Your task to perform on an android device: Open eBay Image 0: 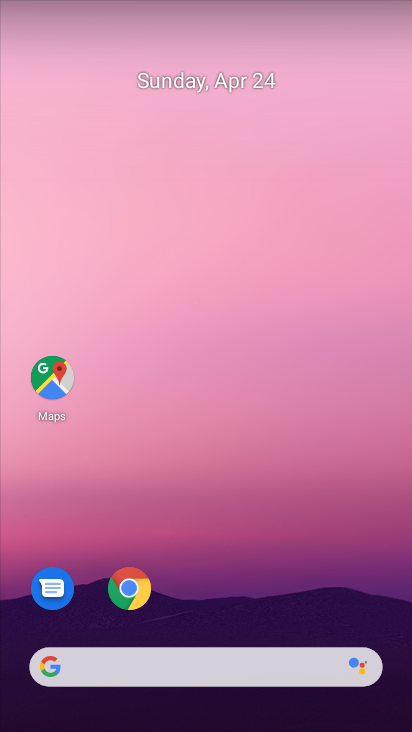
Step 0: click (129, 590)
Your task to perform on an android device: Open eBay Image 1: 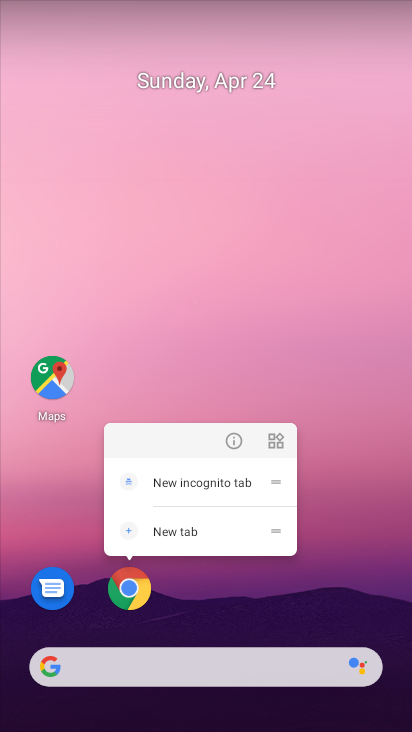
Step 1: click (129, 590)
Your task to perform on an android device: Open eBay Image 2: 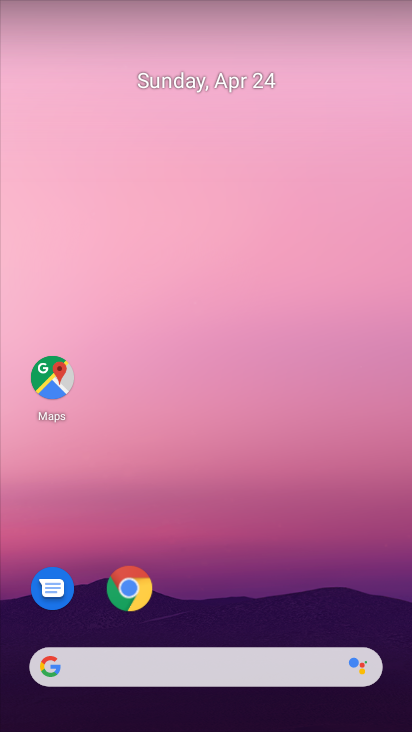
Step 2: click (129, 590)
Your task to perform on an android device: Open eBay Image 3: 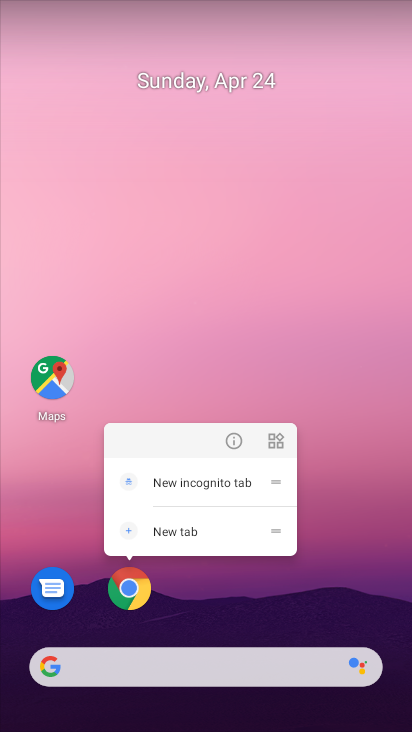
Step 3: click (129, 590)
Your task to perform on an android device: Open eBay Image 4: 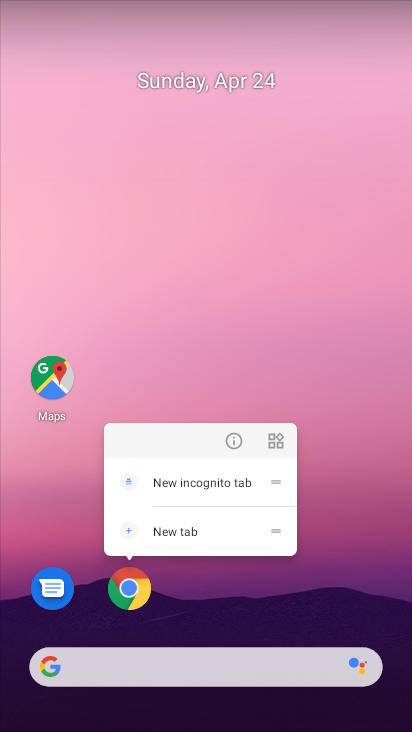
Step 4: click (134, 597)
Your task to perform on an android device: Open eBay Image 5: 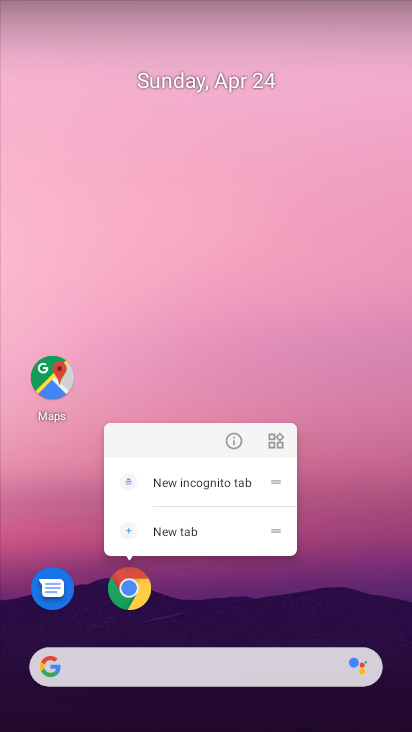
Step 5: click (134, 597)
Your task to perform on an android device: Open eBay Image 6: 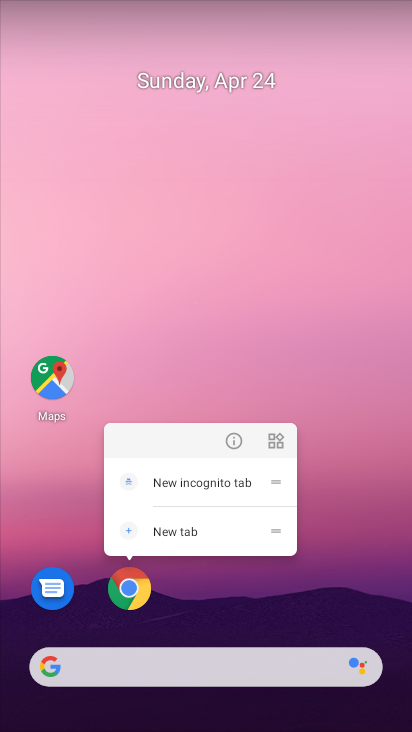
Step 6: click (134, 597)
Your task to perform on an android device: Open eBay Image 7: 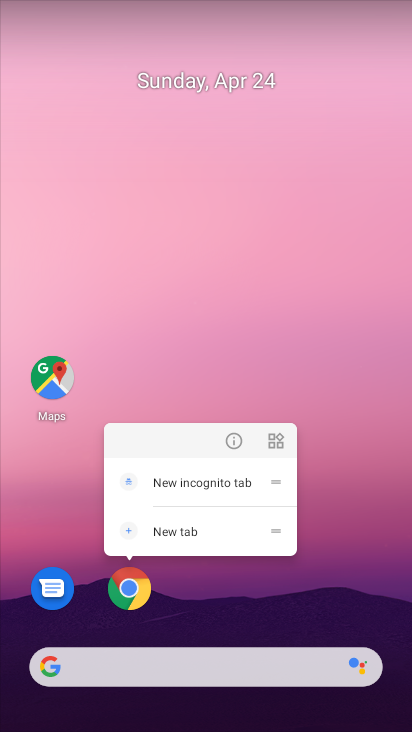
Step 7: click (121, 595)
Your task to perform on an android device: Open eBay Image 8: 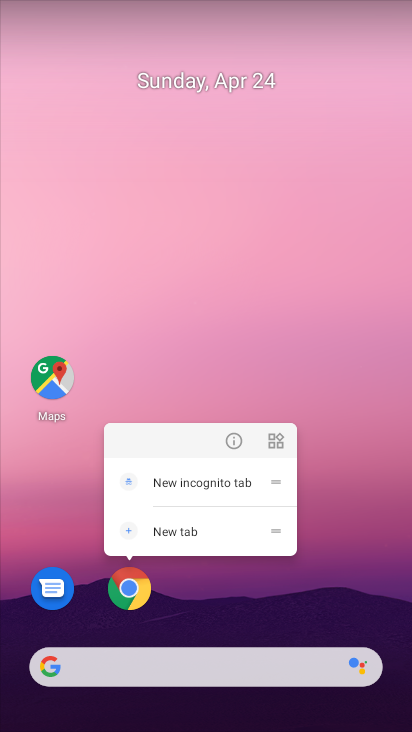
Step 8: click (121, 595)
Your task to perform on an android device: Open eBay Image 9: 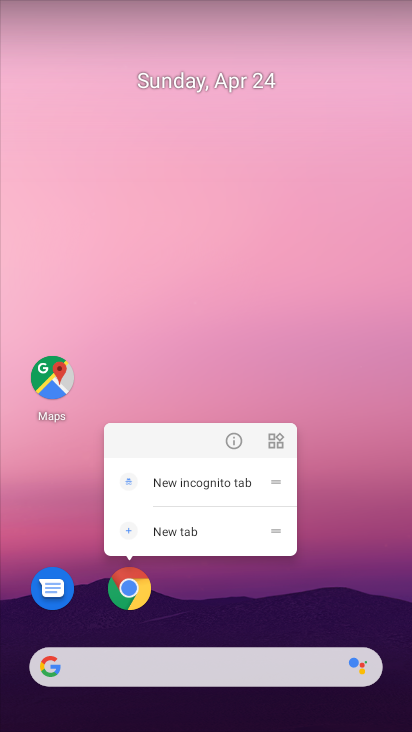
Step 9: click (131, 589)
Your task to perform on an android device: Open eBay Image 10: 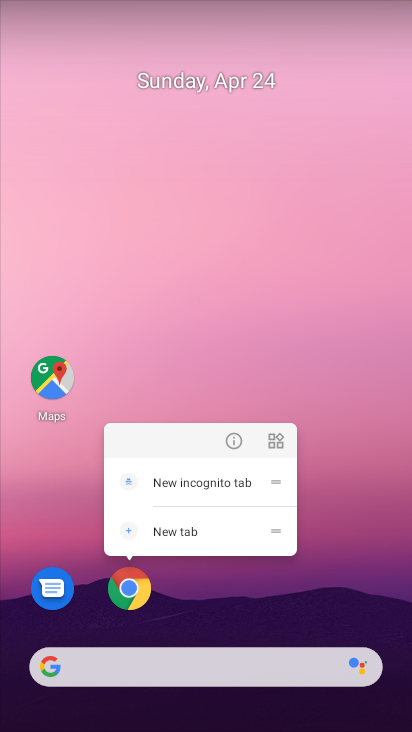
Step 10: click (135, 583)
Your task to perform on an android device: Open eBay Image 11: 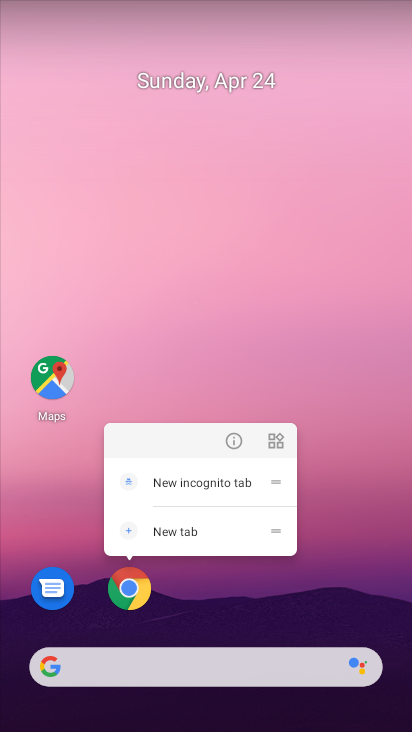
Step 11: click (135, 583)
Your task to perform on an android device: Open eBay Image 12: 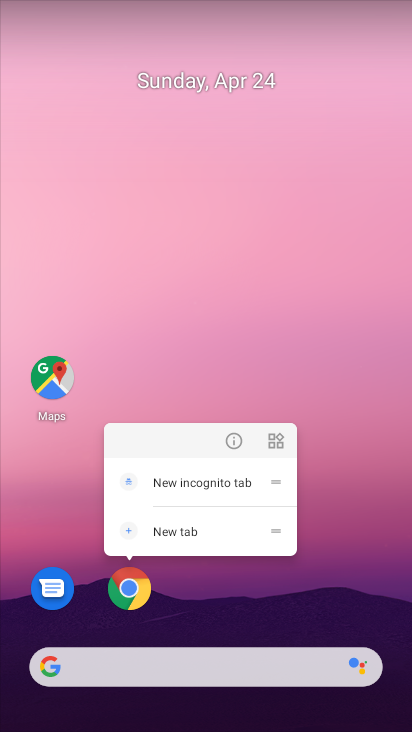
Step 12: click (298, 594)
Your task to perform on an android device: Open eBay Image 13: 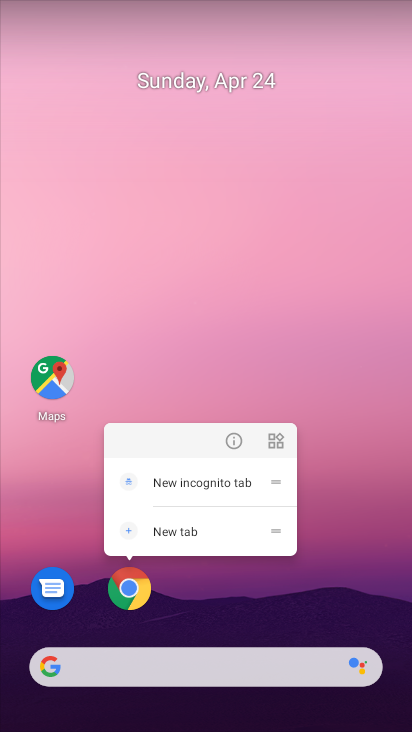
Step 13: click (135, 590)
Your task to perform on an android device: Open eBay Image 14: 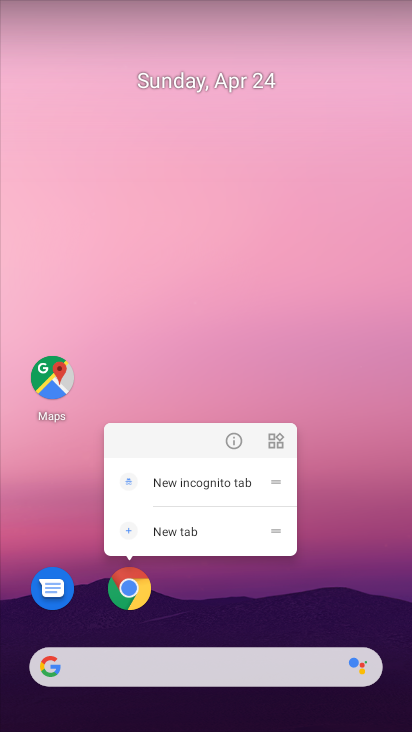
Step 14: click (136, 586)
Your task to perform on an android device: Open eBay Image 15: 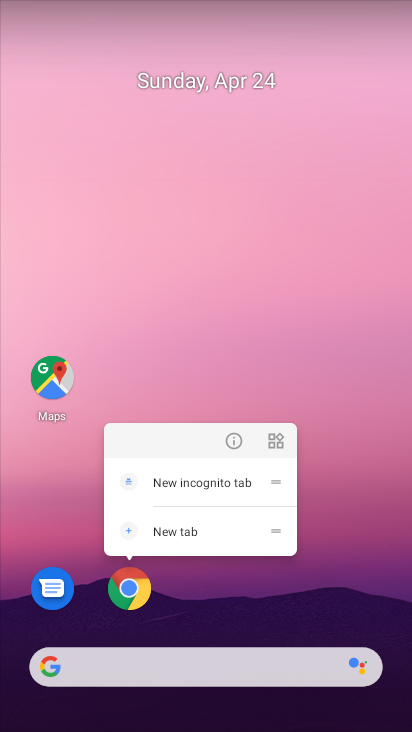
Step 15: click (136, 586)
Your task to perform on an android device: Open eBay Image 16: 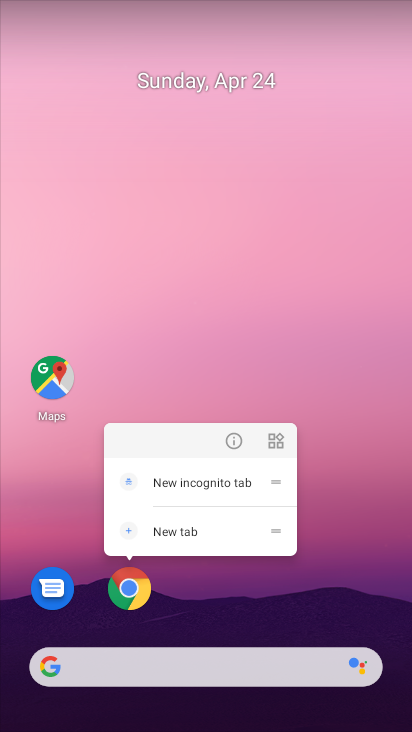
Step 16: click (136, 586)
Your task to perform on an android device: Open eBay Image 17: 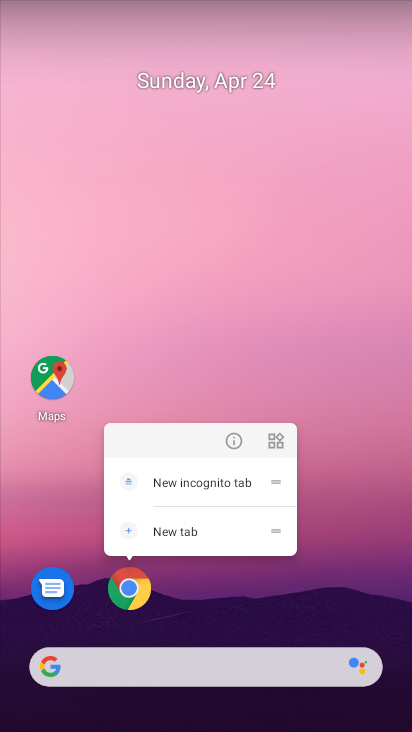
Step 17: click (136, 586)
Your task to perform on an android device: Open eBay Image 18: 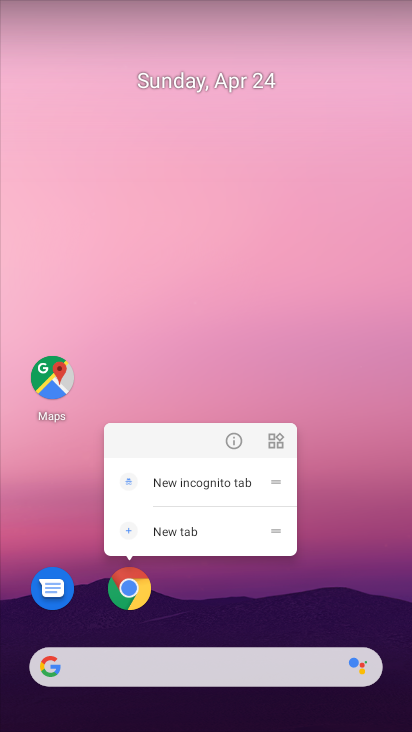
Step 18: click (131, 583)
Your task to perform on an android device: Open eBay Image 19: 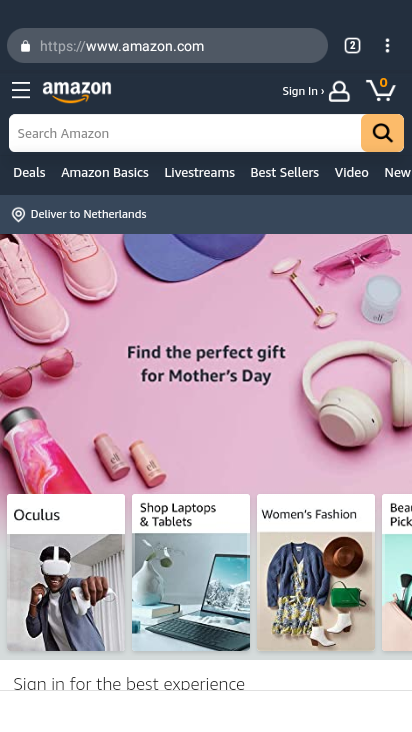
Step 19: click (349, 44)
Your task to perform on an android device: Open eBay Image 20: 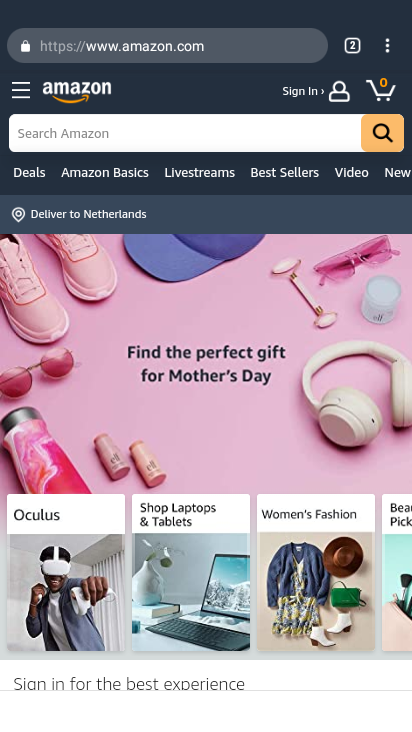
Step 20: click (349, 44)
Your task to perform on an android device: Open eBay Image 21: 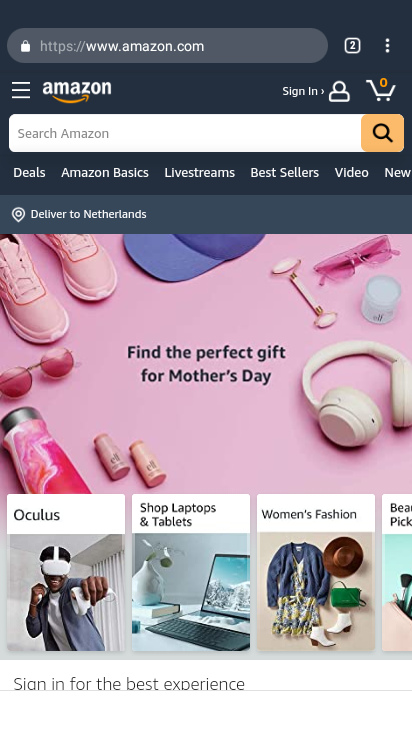
Step 21: click (358, 46)
Your task to perform on an android device: Open eBay Image 22: 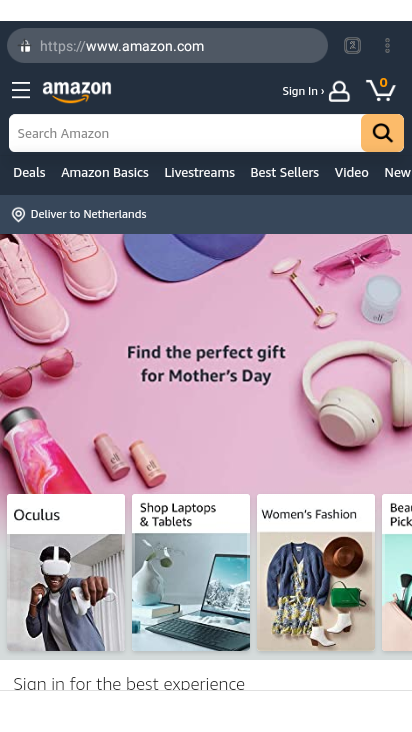
Step 22: click (358, 46)
Your task to perform on an android device: Open eBay Image 23: 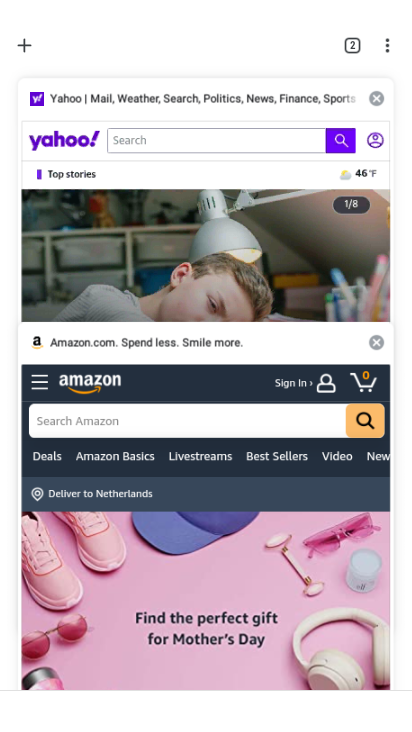
Step 23: click (23, 46)
Your task to perform on an android device: Open eBay Image 24: 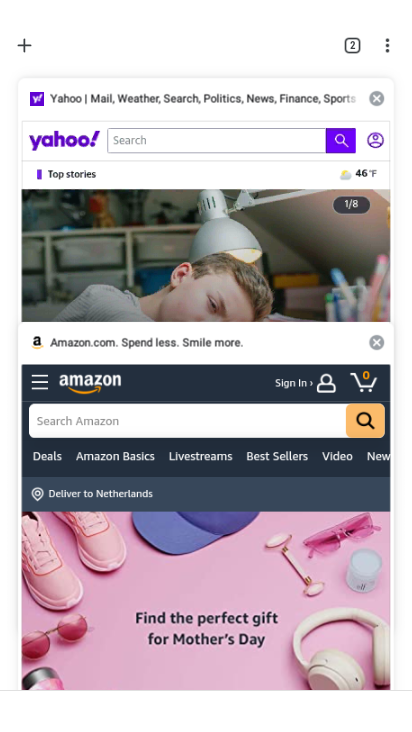
Step 24: click (23, 46)
Your task to perform on an android device: Open eBay Image 25: 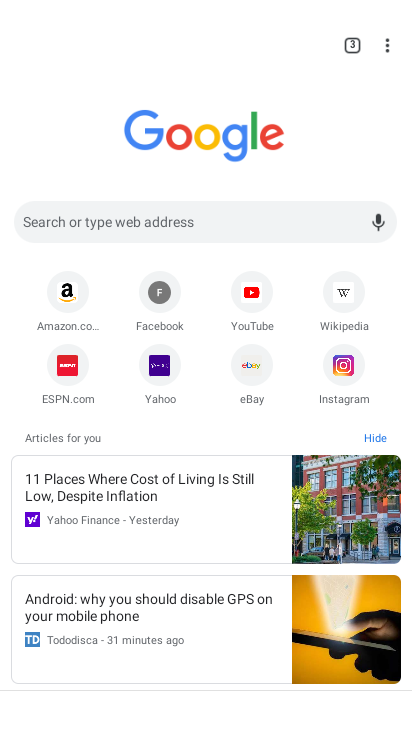
Step 25: click (256, 372)
Your task to perform on an android device: Open eBay Image 26: 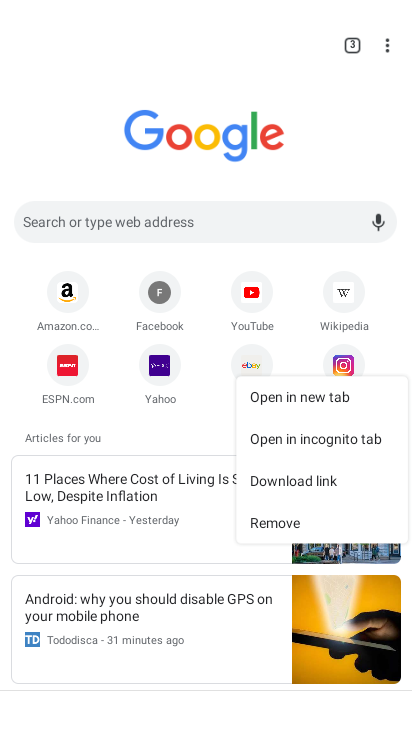
Step 26: click (247, 360)
Your task to perform on an android device: Open eBay Image 27: 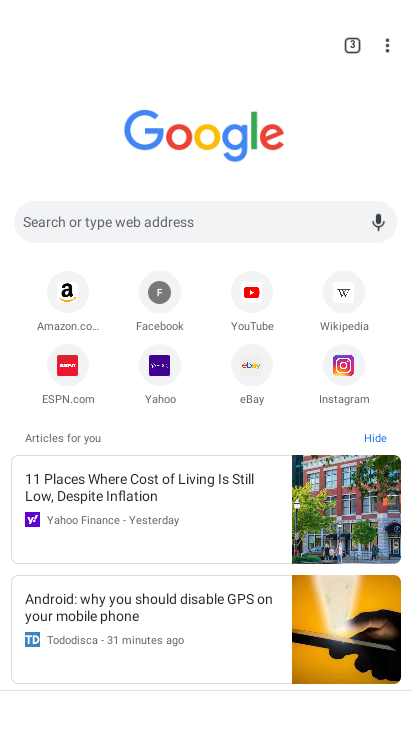
Step 27: click (247, 360)
Your task to perform on an android device: Open eBay Image 28: 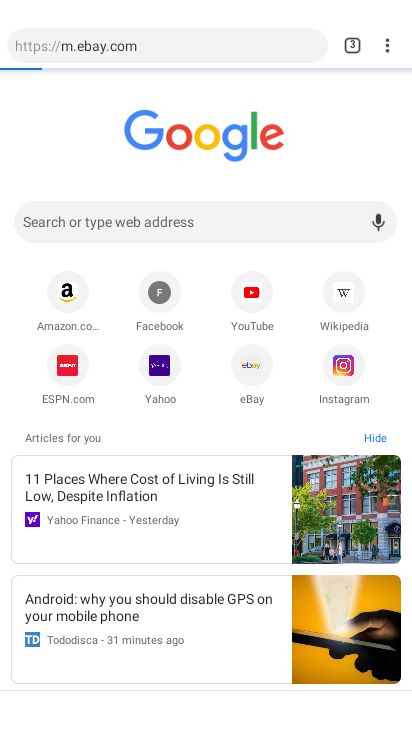
Step 28: click (247, 360)
Your task to perform on an android device: Open eBay Image 29: 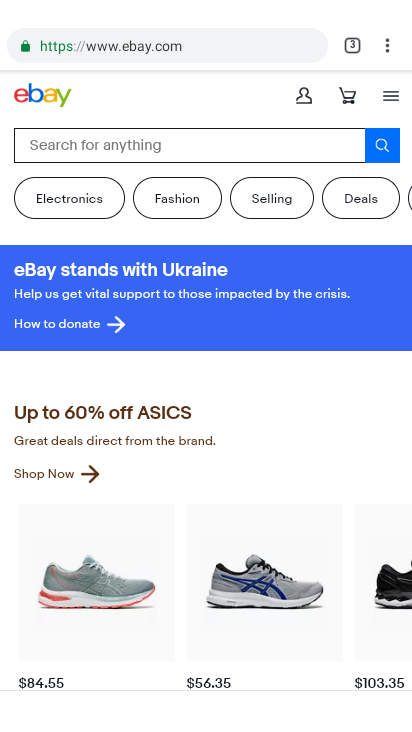
Step 29: task complete